Your task to perform on an android device: When is my next appointment? Image 0: 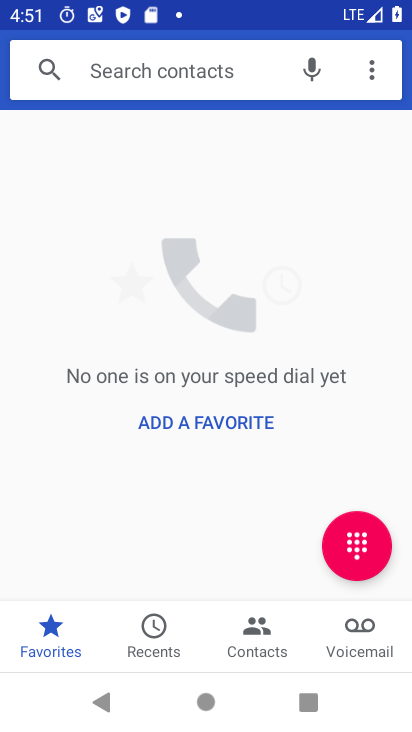
Step 0: press home button
Your task to perform on an android device: When is my next appointment? Image 1: 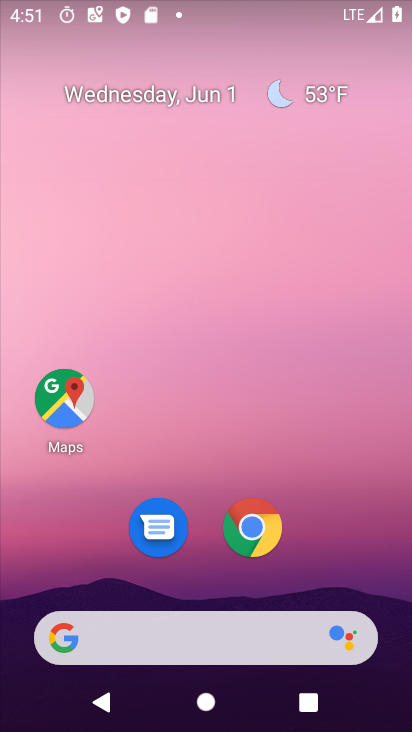
Step 1: drag from (320, 571) to (374, 38)
Your task to perform on an android device: When is my next appointment? Image 2: 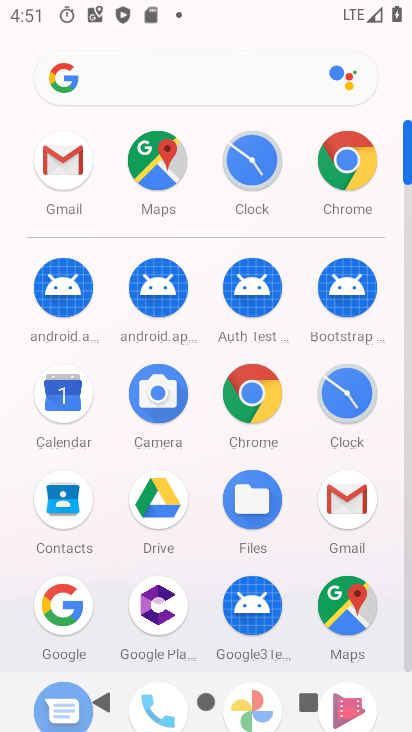
Step 2: drag from (290, 462) to (312, 117)
Your task to perform on an android device: When is my next appointment? Image 3: 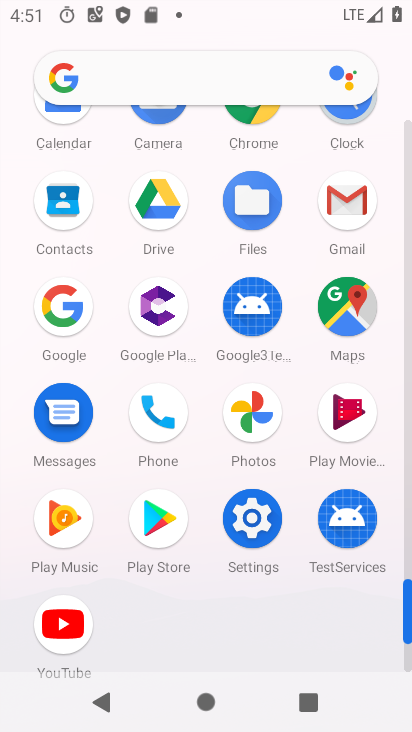
Step 3: drag from (120, 138) to (54, 473)
Your task to perform on an android device: When is my next appointment? Image 4: 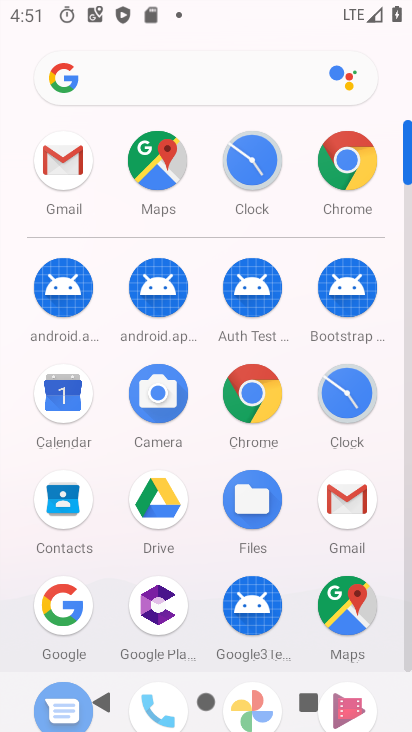
Step 4: click (67, 394)
Your task to perform on an android device: When is my next appointment? Image 5: 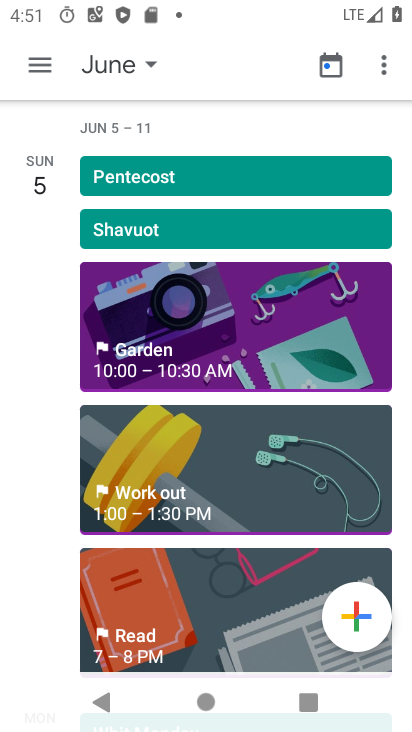
Step 5: click (146, 63)
Your task to perform on an android device: When is my next appointment? Image 6: 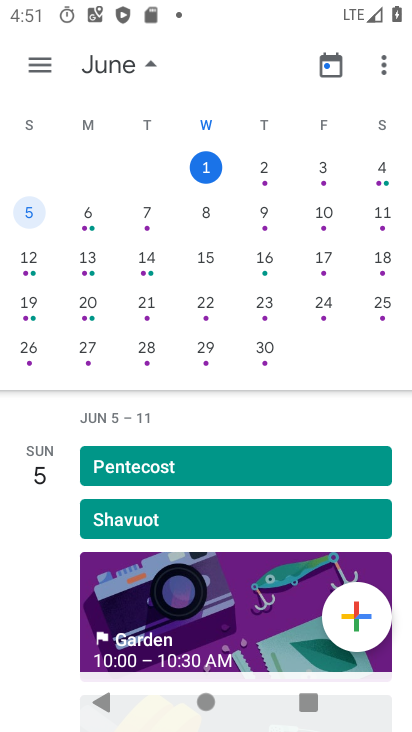
Step 6: click (205, 165)
Your task to perform on an android device: When is my next appointment? Image 7: 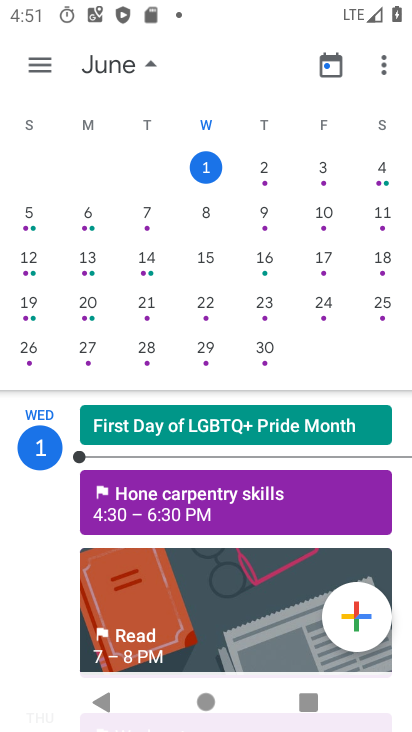
Step 7: task complete